Your task to perform on an android device: read, delete, or share a saved page in the chrome app Image 0: 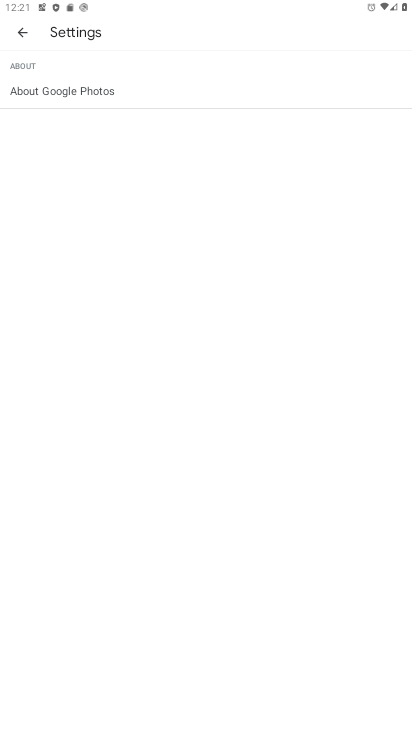
Step 0: press home button
Your task to perform on an android device: read, delete, or share a saved page in the chrome app Image 1: 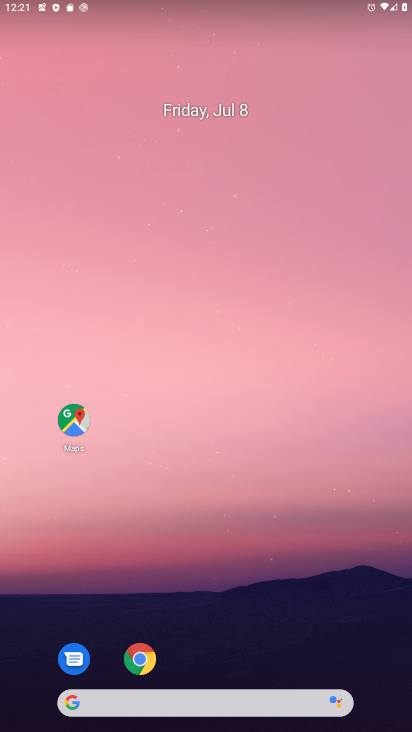
Step 1: click (140, 665)
Your task to perform on an android device: read, delete, or share a saved page in the chrome app Image 2: 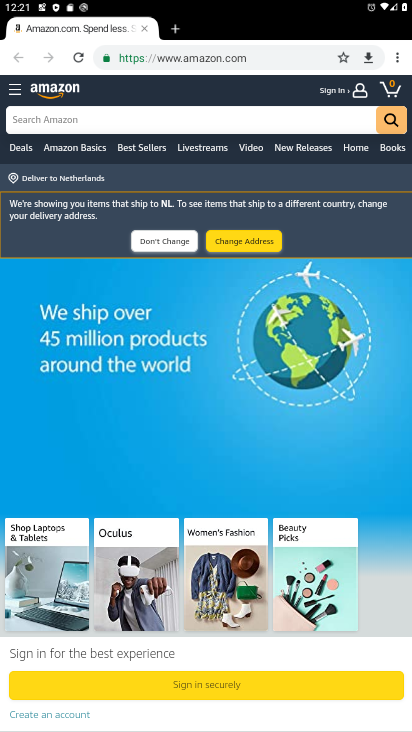
Step 2: click (399, 58)
Your task to perform on an android device: read, delete, or share a saved page in the chrome app Image 3: 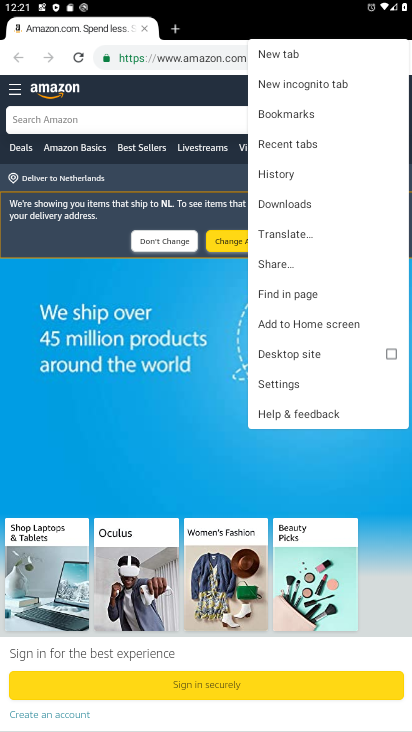
Step 3: click (287, 380)
Your task to perform on an android device: read, delete, or share a saved page in the chrome app Image 4: 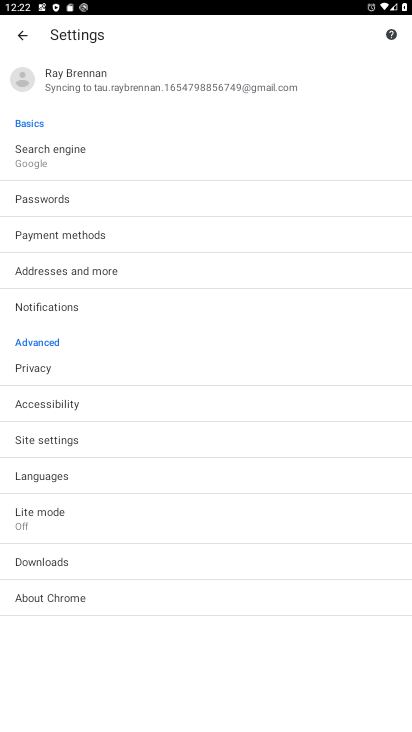
Step 4: click (21, 31)
Your task to perform on an android device: read, delete, or share a saved page in the chrome app Image 5: 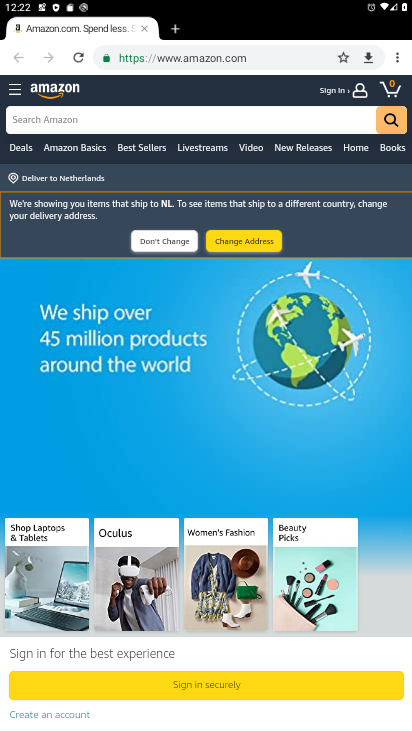
Step 5: click (391, 48)
Your task to perform on an android device: read, delete, or share a saved page in the chrome app Image 6: 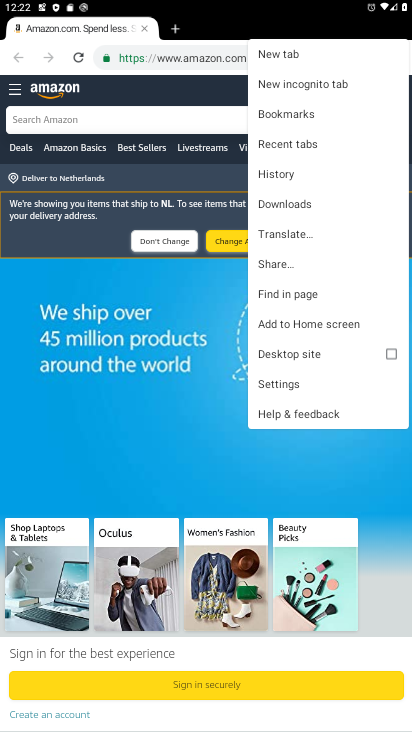
Step 6: click (286, 204)
Your task to perform on an android device: read, delete, or share a saved page in the chrome app Image 7: 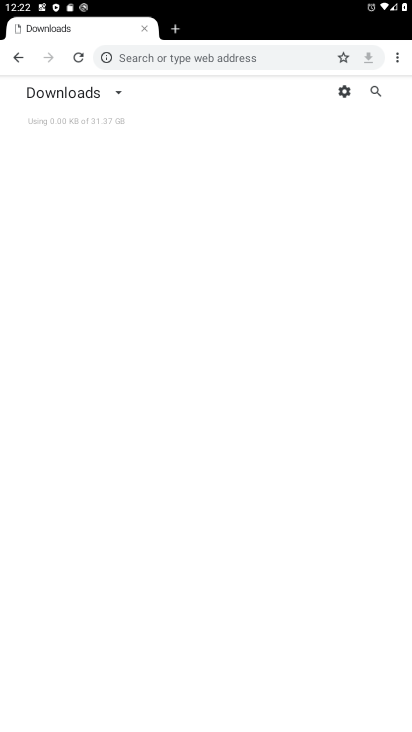
Step 7: task complete